Your task to perform on an android device: Show the shopping cart on newegg. Add "energizer triple a" to the cart on newegg, then select checkout. Image 0: 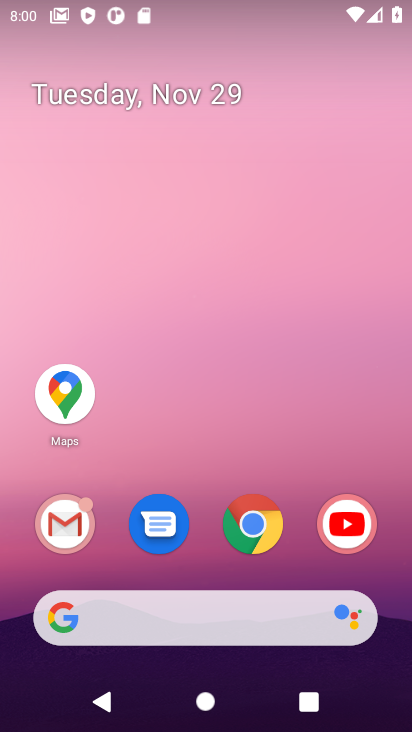
Step 0: click (255, 527)
Your task to perform on an android device: Show the shopping cart on newegg. Add "energizer triple a" to the cart on newegg, then select checkout. Image 1: 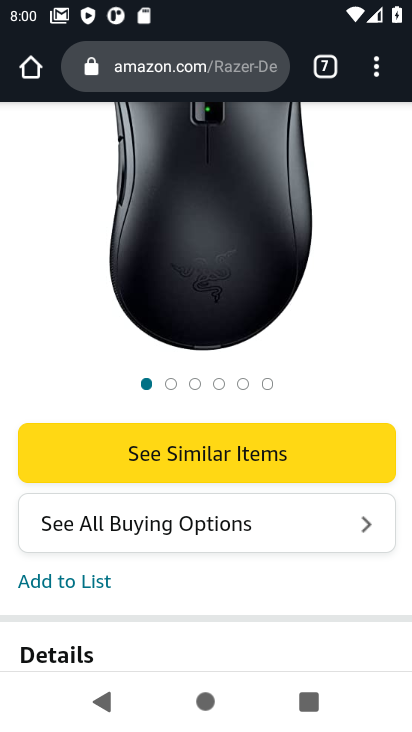
Step 1: click (182, 69)
Your task to perform on an android device: Show the shopping cart on newegg. Add "energizer triple a" to the cart on newegg, then select checkout. Image 2: 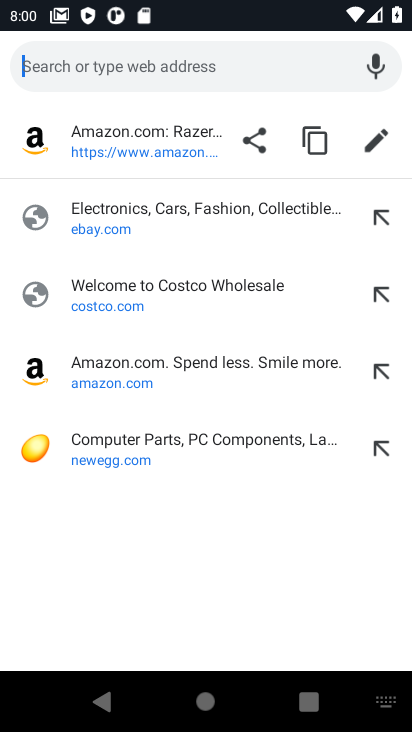
Step 2: click (110, 446)
Your task to perform on an android device: Show the shopping cart on newegg. Add "energizer triple a" to the cart on newegg, then select checkout. Image 3: 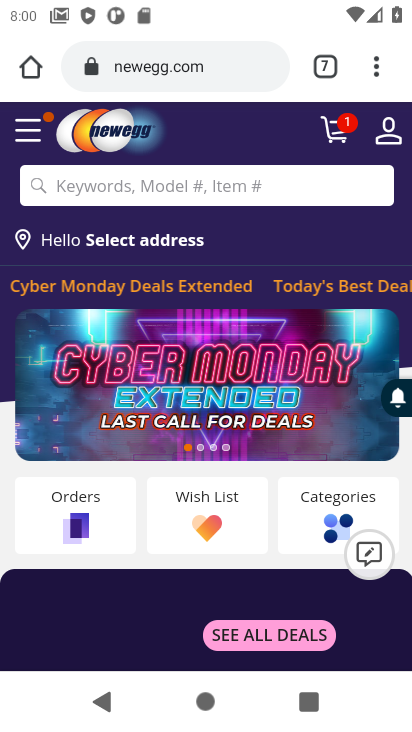
Step 3: click (334, 134)
Your task to perform on an android device: Show the shopping cart on newegg. Add "energizer triple a" to the cart on newegg, then select checkout. Image 4: 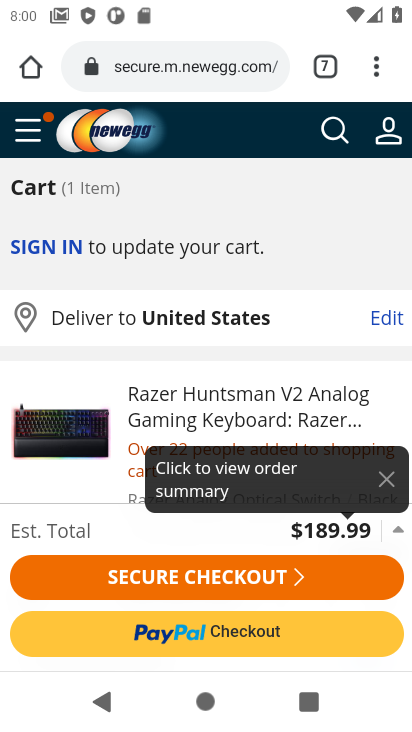
Step 4: click (329, 138)
Your task to perform on an android device: Show the shopping cart on newegg. Add "energizer triple a" to the cart on newegg, then select checkout. Image 5: 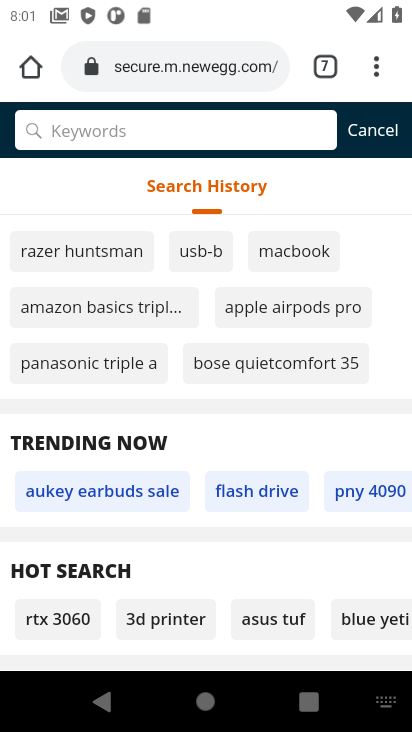
Step 5: type "energizer triple a"
Your task to perform on an android device: Show the shopping cart on newegg. Add "energizer triple a" to the cart on newegg, then select checkout. Image 6: 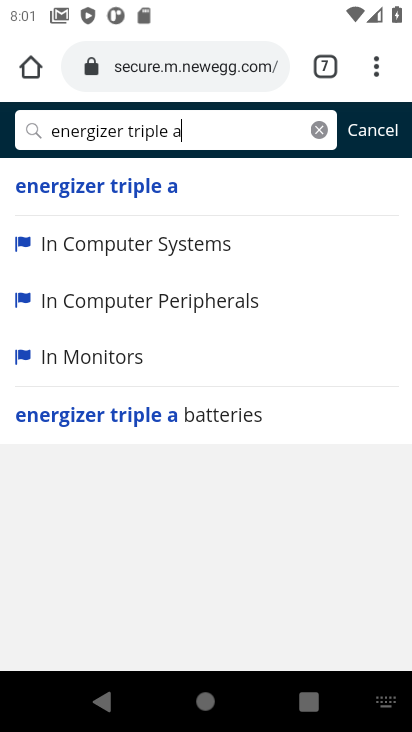
Step 6: click (138, 191)
Your task to perform on an android device: Show the shopping cart on newegg. Add "energizer triple a" to the cart on newegg, then select checkout. Image 7: 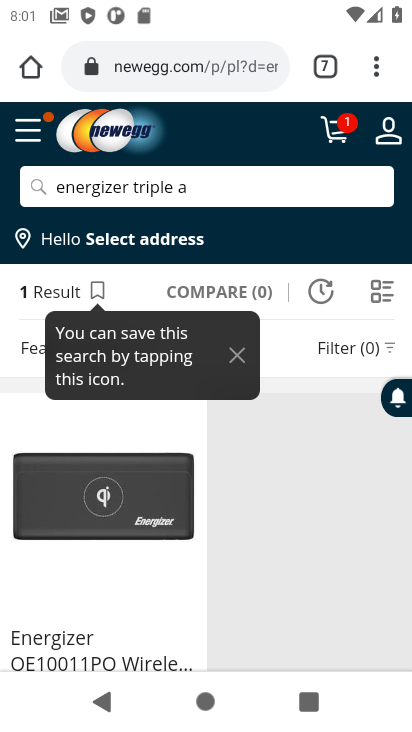
Step 7: task complete